Your task to perform on an android device: Go to Maps Image 0: 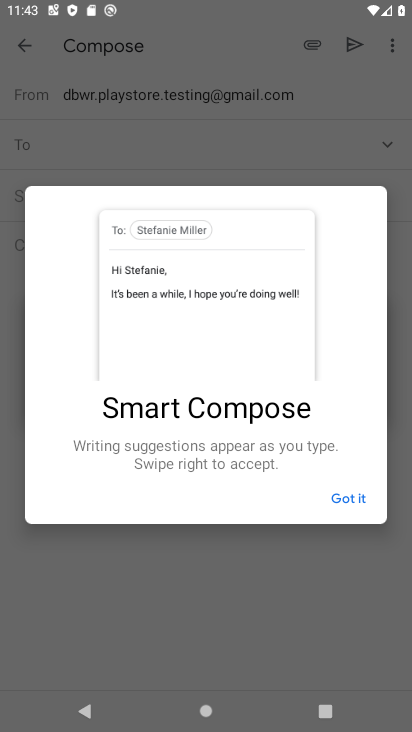
Step 0: press home button
Your task to perform on an android device: Go to Maps Image 1: 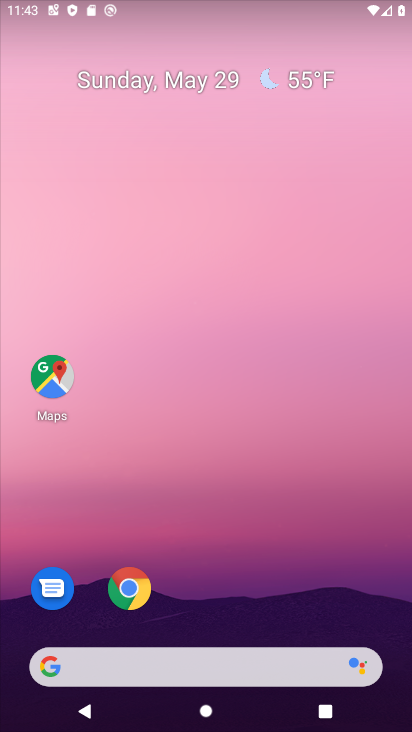
Step 1: drag from (299, 471) to (378, 22)
Your task to perform on an android device: Go to Maps Image 2: 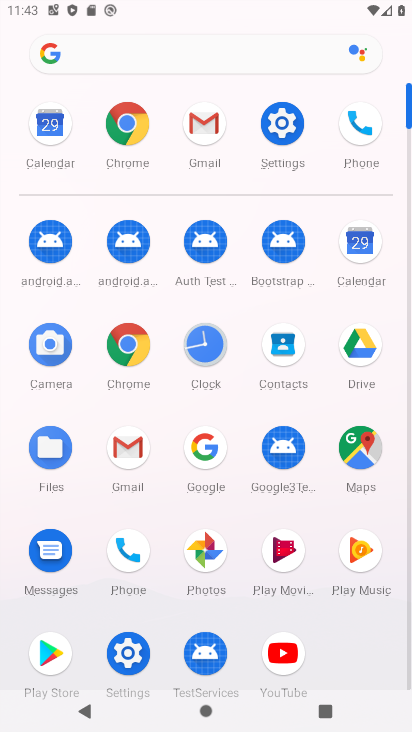
Step 2: click (366, 434)
Your task to perform on an android device: Go to Maps Image 3: 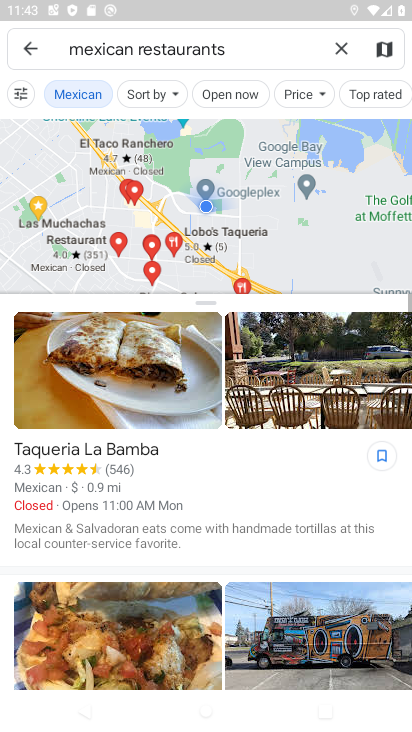
Step 3: task complete